Your task to perform on an android device: open chrome privacy settings Image 0: 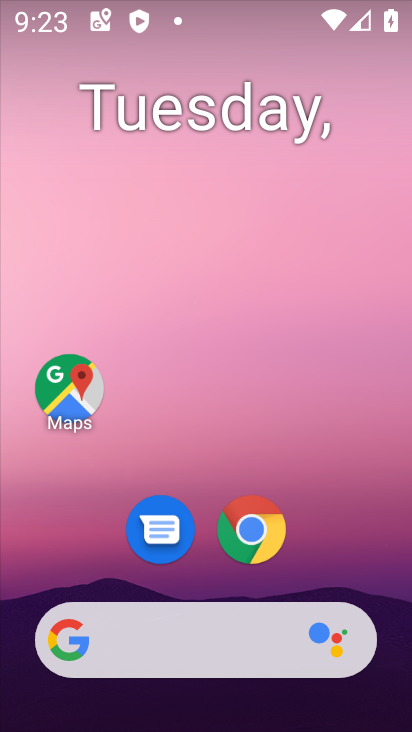
Step 0: drag from (239, 510) to (222, 151)
Your task to perform on an android device: open chrome privacy settings Image 1: 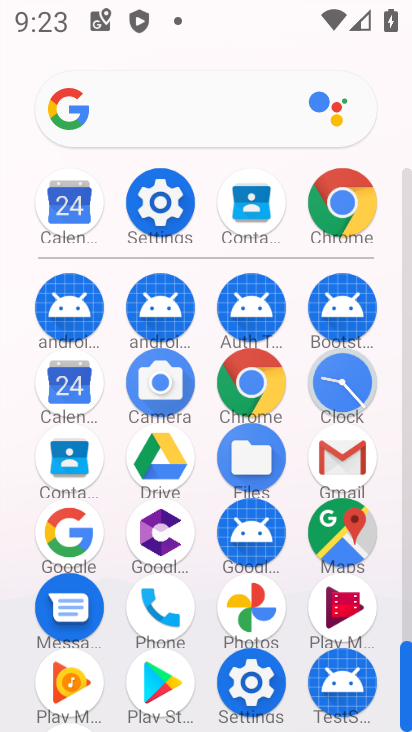
Step 1: click (352, 232)
Your task to perform on an android device: open chrome privacy settings Image 2: 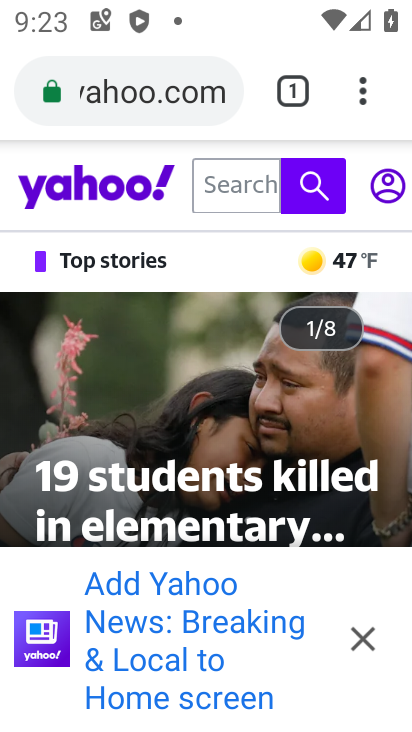
Step 2: click (390, 83)
Your task to perform on an android device: open chrome privacy settings Image 3: 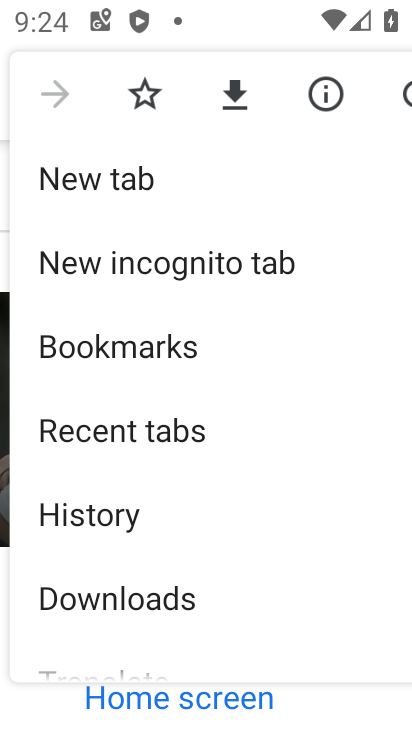
Step 3: drag from (187, 506) to (198, 181)
Your task to perform on an android device: open chrome privacy settings Image 4: 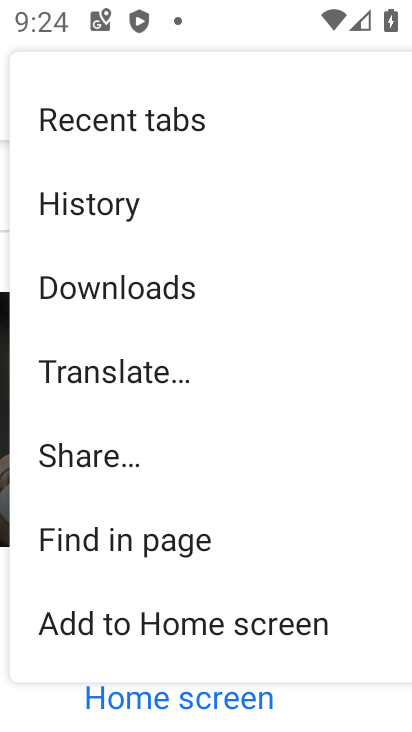
Step 4: drag from (193, 416) to (177, 139)
Your task to perform on an android device: open chrome privacy settings Image 5: 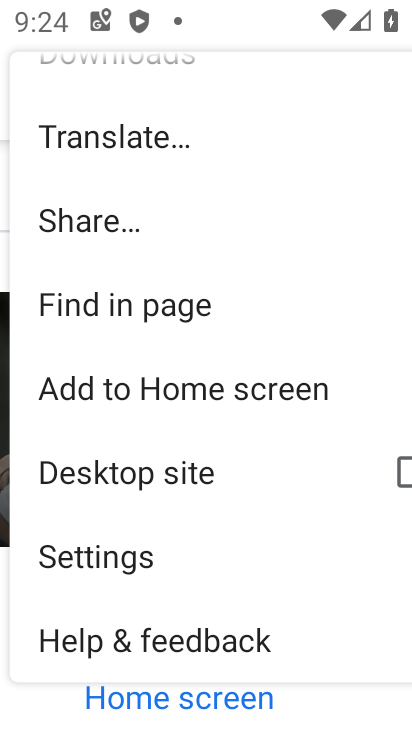
Step 5: click (139, 558)
Your task to perform on an android device: open chrome privacy settings Image 6: 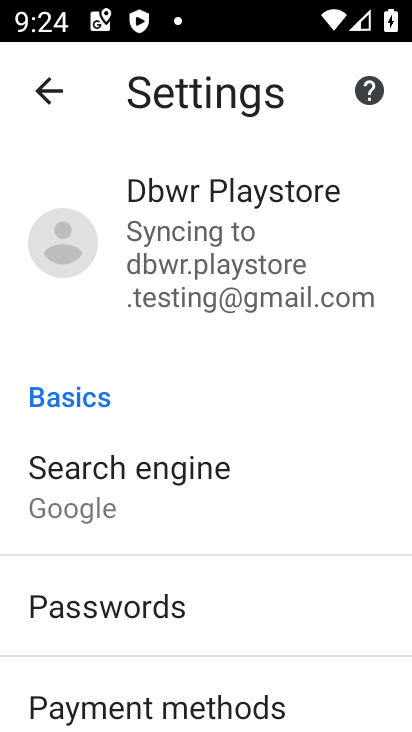
Step 6: drag from (197, 647) to (206, 471)
Your task to perform on an android device: open chrome privacy settings Image 7: 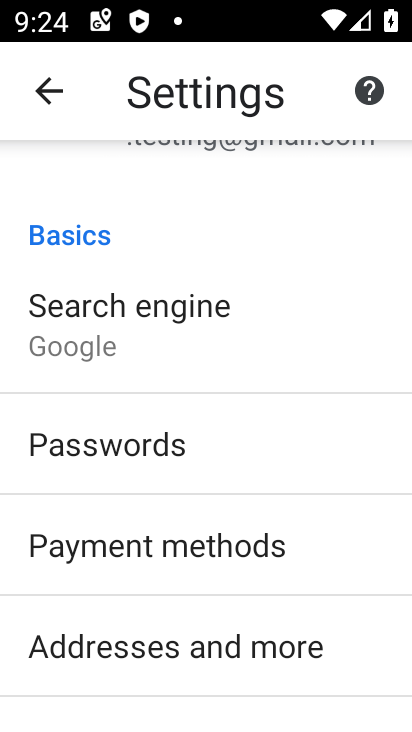
Step 7: drag from (202, 591) to (212, 411)
Your task to perform on an android device: open chrome privacy settings Image 8: 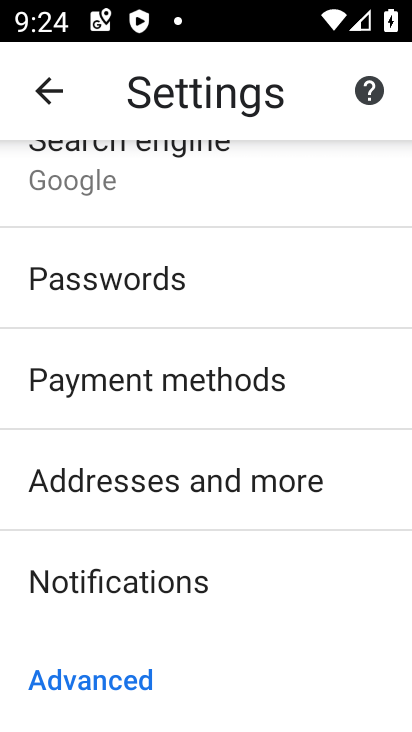
Step 8: drag from (159, 609) to (168, 381)
Your task to perform on an android device: open chrome privacy settings Image 9: 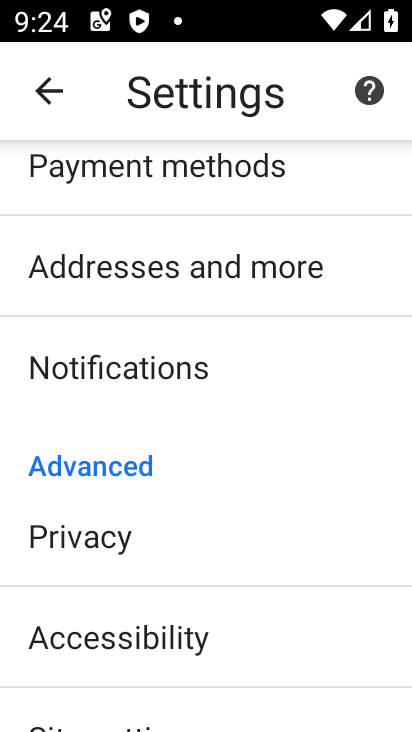
Step 9: click (117, 544)
Your task to perform on an android device: open chrome privacy settings Image 10: 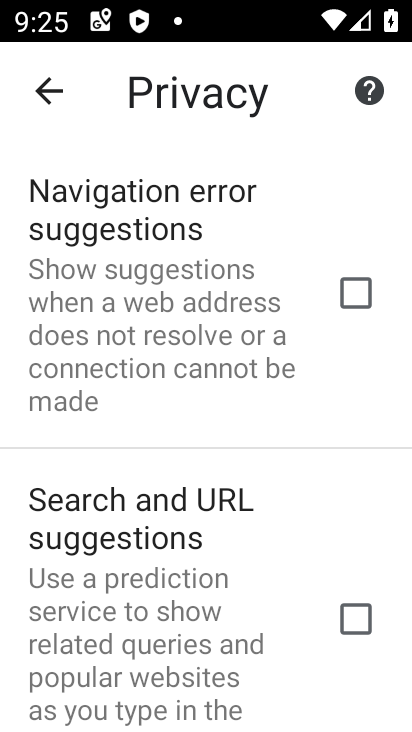
Step 10: task complete